Your task to perform on an android device: turn pop-ups off in chrome Image 0: 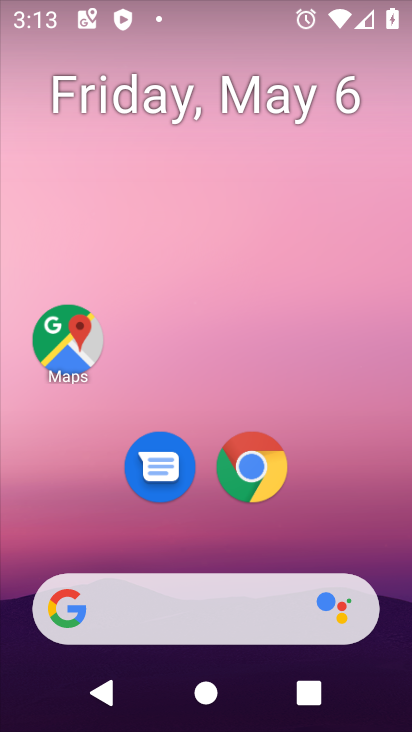
Step 0: drag from (226, 519) to (325, 88)
Your task to perform on an android device: turn pop-ups off in chrome Image 1: 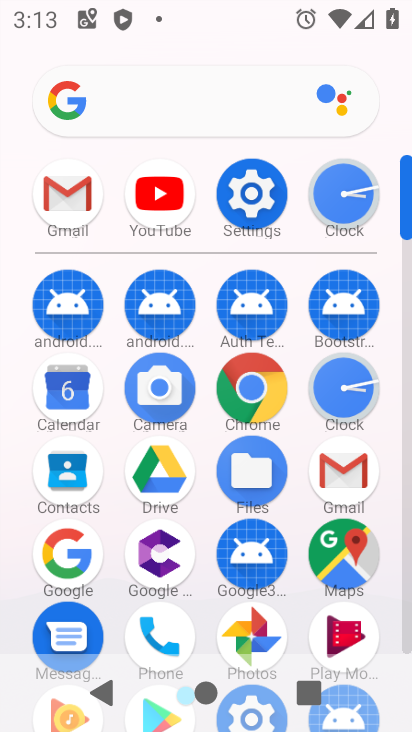
Step 1: click (246, 393)
Your task to perform on an android device: turn pop-ups off in chrome Image 2: 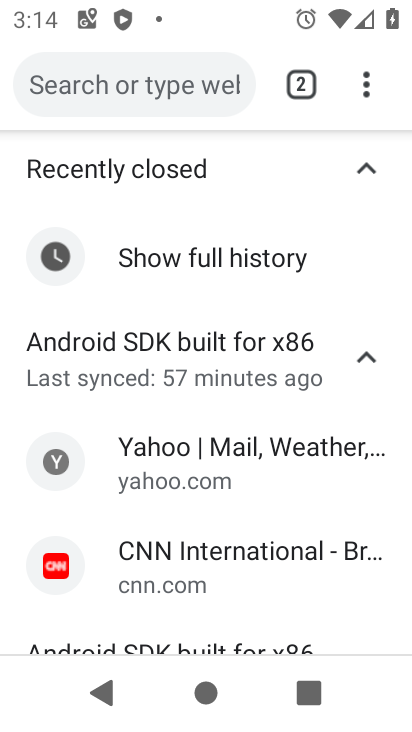
Step 2: click (362, 87)
Your task to perform on an android device: turn pop-ups off in chrome Image 3: 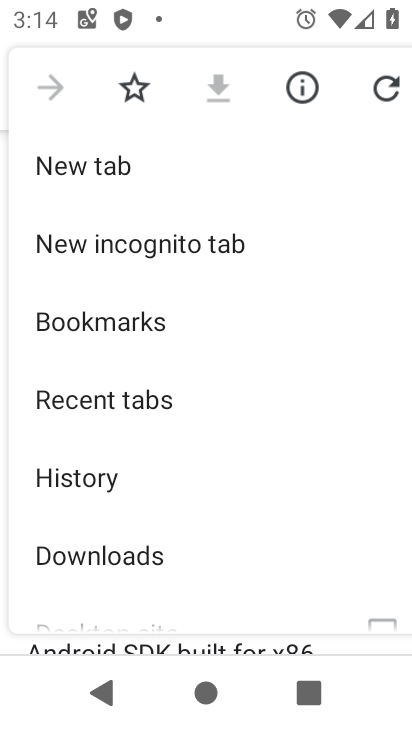
Step 3: drag from (113, 609) to (250, 69)
Your task to perform on an android device: turn pop-ups off in chrome Image 4: 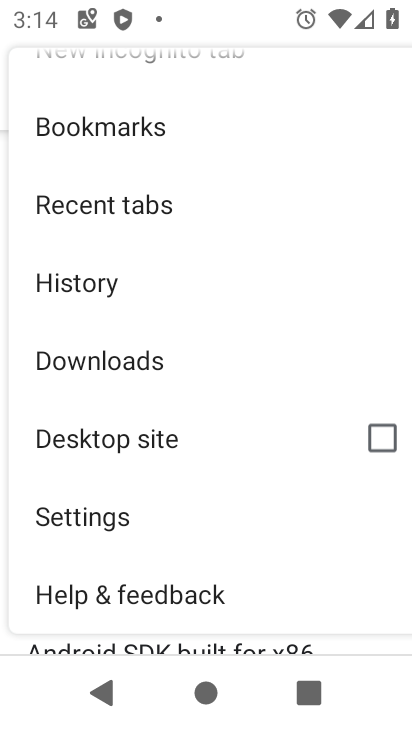
Step 4: click (71, 515)
Your task to perform on an android device: turn pop-ups off in chrome Image 5: 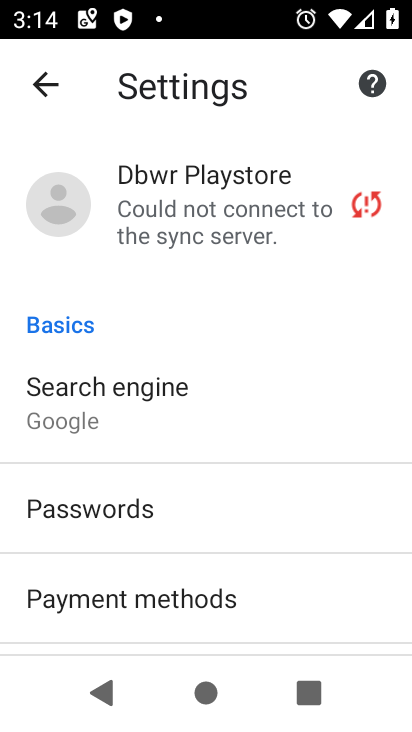
Step 5: drag from (214, 577) to (300, 85)
Your task to perform on an android device: turn pop-ups off in chrome Image 6: 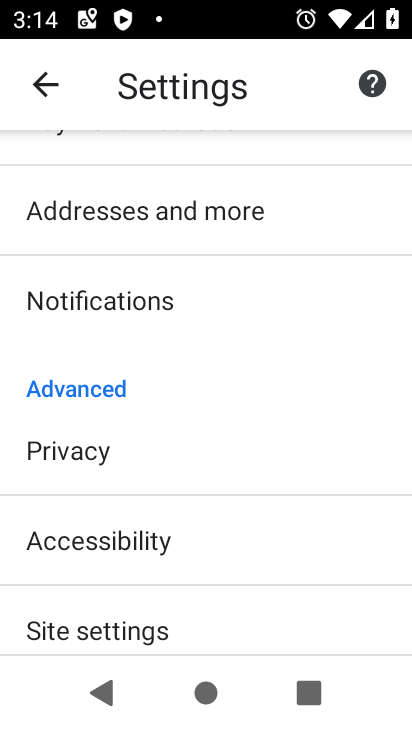
Step 6: drag from (243, 516) to (316, 88)
Your task to perform on an android device: turn pop-ups off in chrome Image 7: 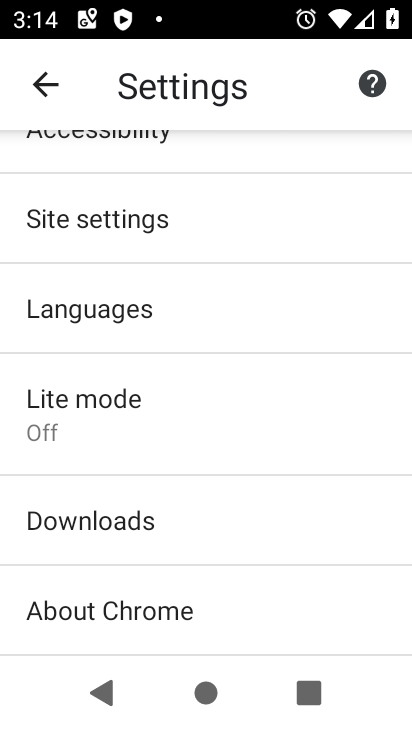
Step 7: click (141, 220)
Your task to perform on an android device: turn pop-ups off in chrome Image 8: 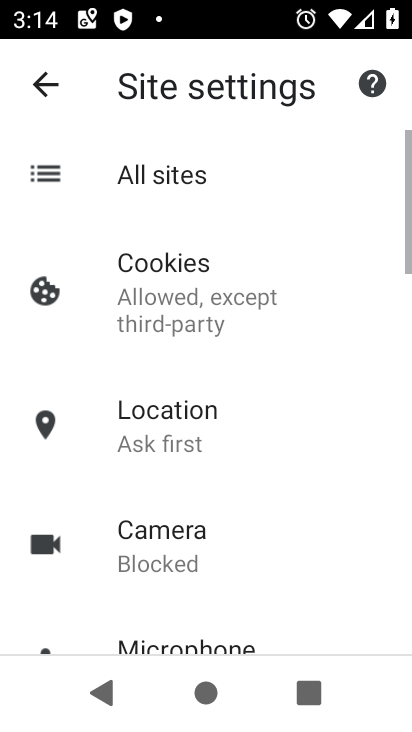
Step 8: drag from (151, 579) to (249, 165)
Your task to perform on an android device: turn pop-ups off in chrome Image 9: 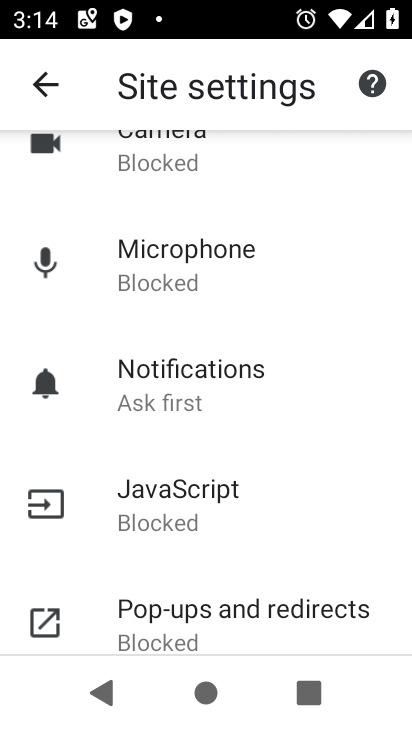
Step 9: click (219, 627)
Your task to perform on an android device: turn pop-ups off in chrome Image 10: 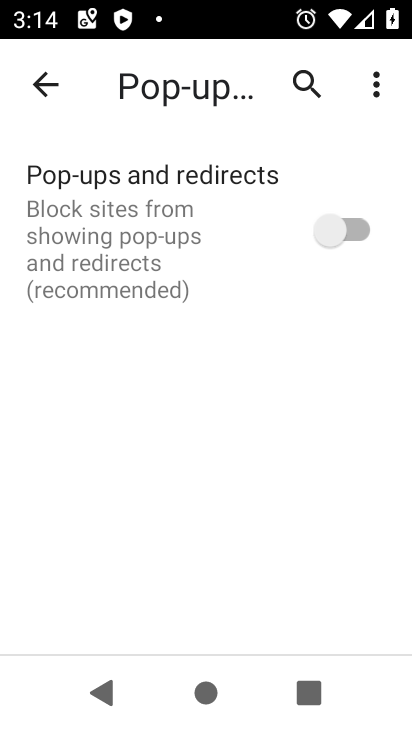
Step 10: task complete